Your task to perform on an android device: turn on the 12-hour format for clock Image 0: 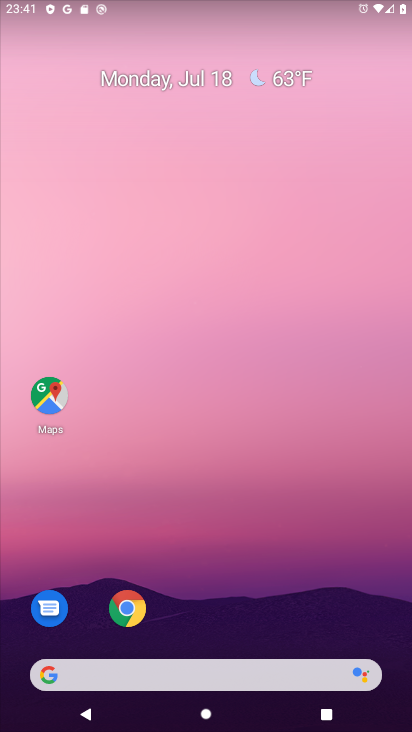
Step 0: drag from (310, 584) to (334, 105)
Your task to perform on an android device: turn on the 12-hour format for clock Image 1: 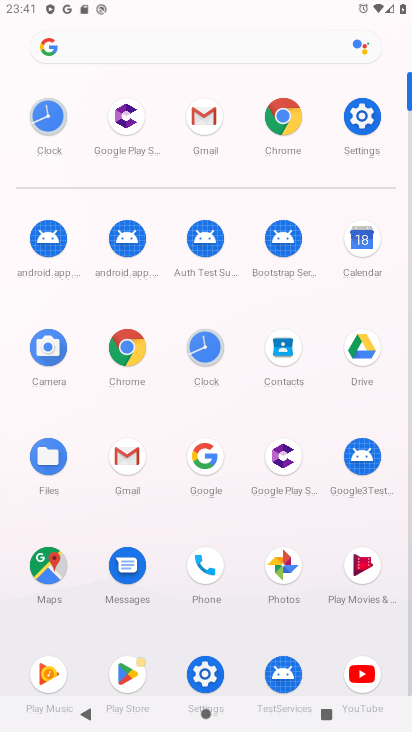
Step 1: click (358, 107)
Your task to perform on an android device: turn on the 12-hour format for clock Image 2: 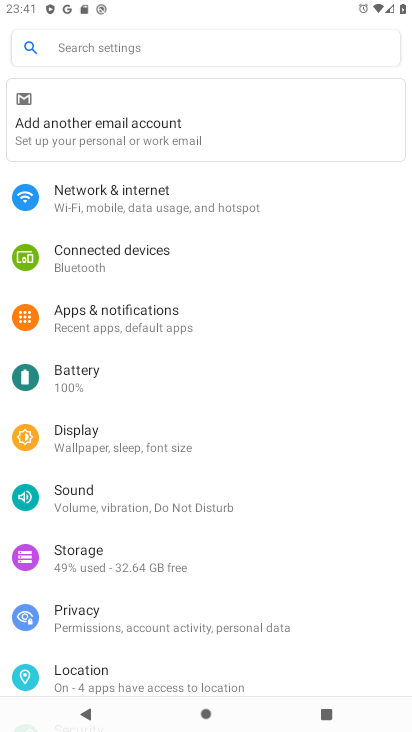
Step 2: drag from (138, 596) to (139, 253)
Your task to perform on an android device: turn on the 12-hour format for clock Image 3: 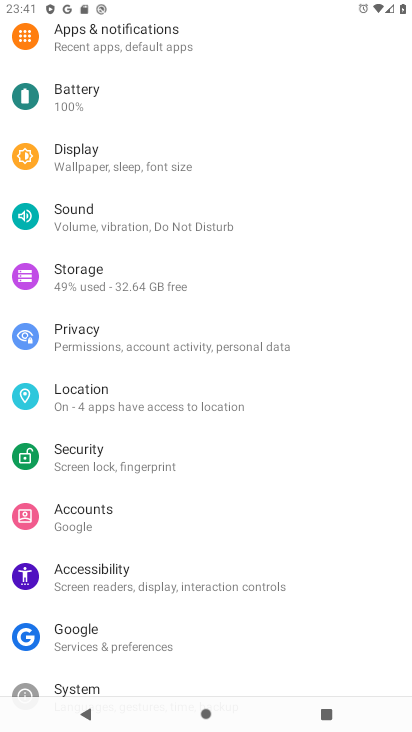
Step 3: drag from (177, 525) to (211, 162)
Your task to perform on an android device: turn on the 12-hour format for clock Image 4: 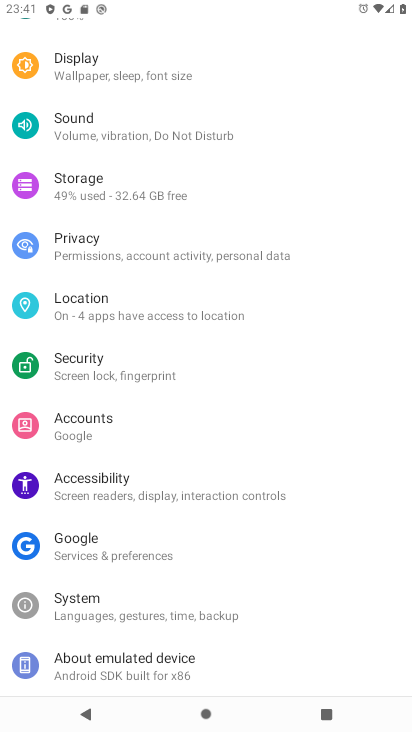
Step 4: click (149, 621)
Your task to perform on an android device: turn on the 12-hour format for clock Image 5: 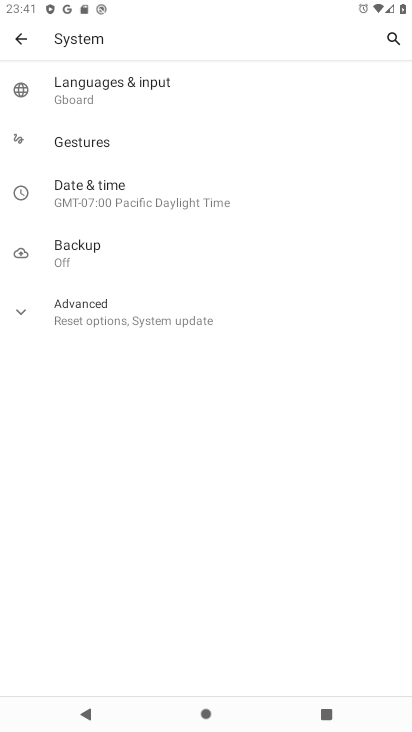
Step 5: click (199, 192)
Your task to perform on an android device: turn on the 12-hour format for clock Image 6: 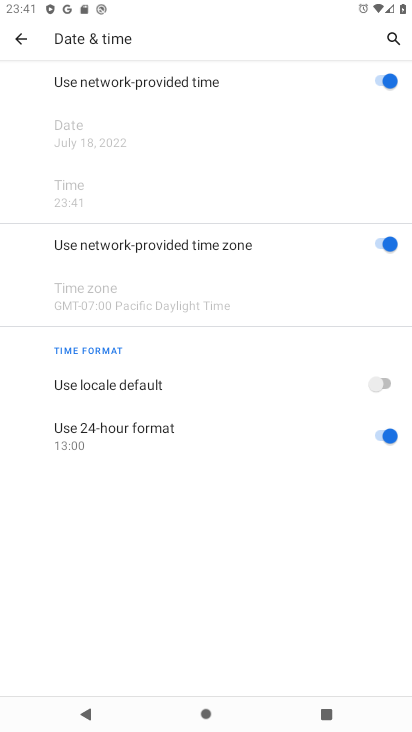
Step 6: click (373, 376)
Your task to perform on an android device: turn on the 12-hour format for clock Image 7: 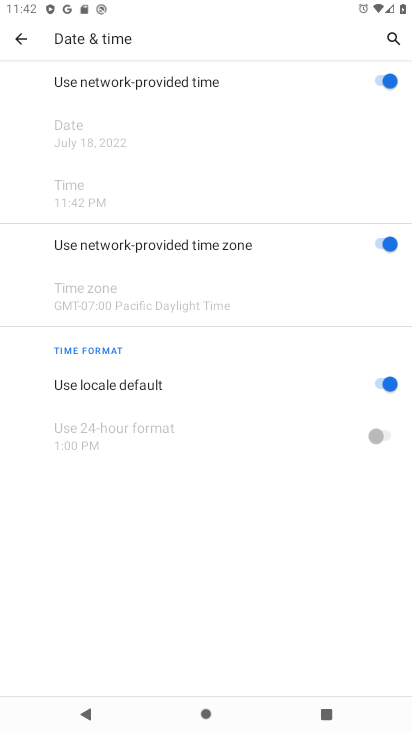
Step 7: task complete